Your task to perform on an android device: Open Google Maps and go to "Timeline" Image 0: 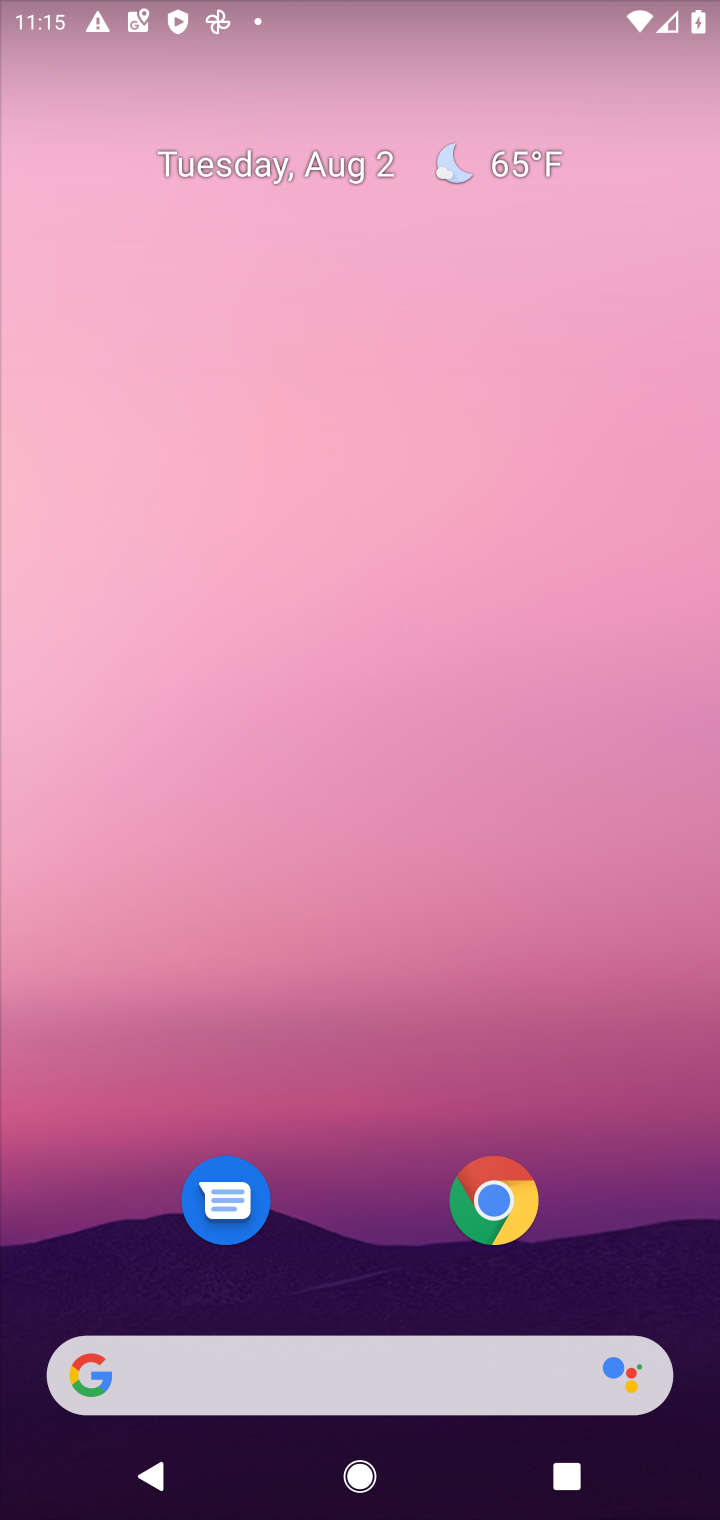
Step 0: drag from (662, 1311) to (529, 171)
Your task to perform on an android device: Open Google Maps and go to "Timeline" Image 1: 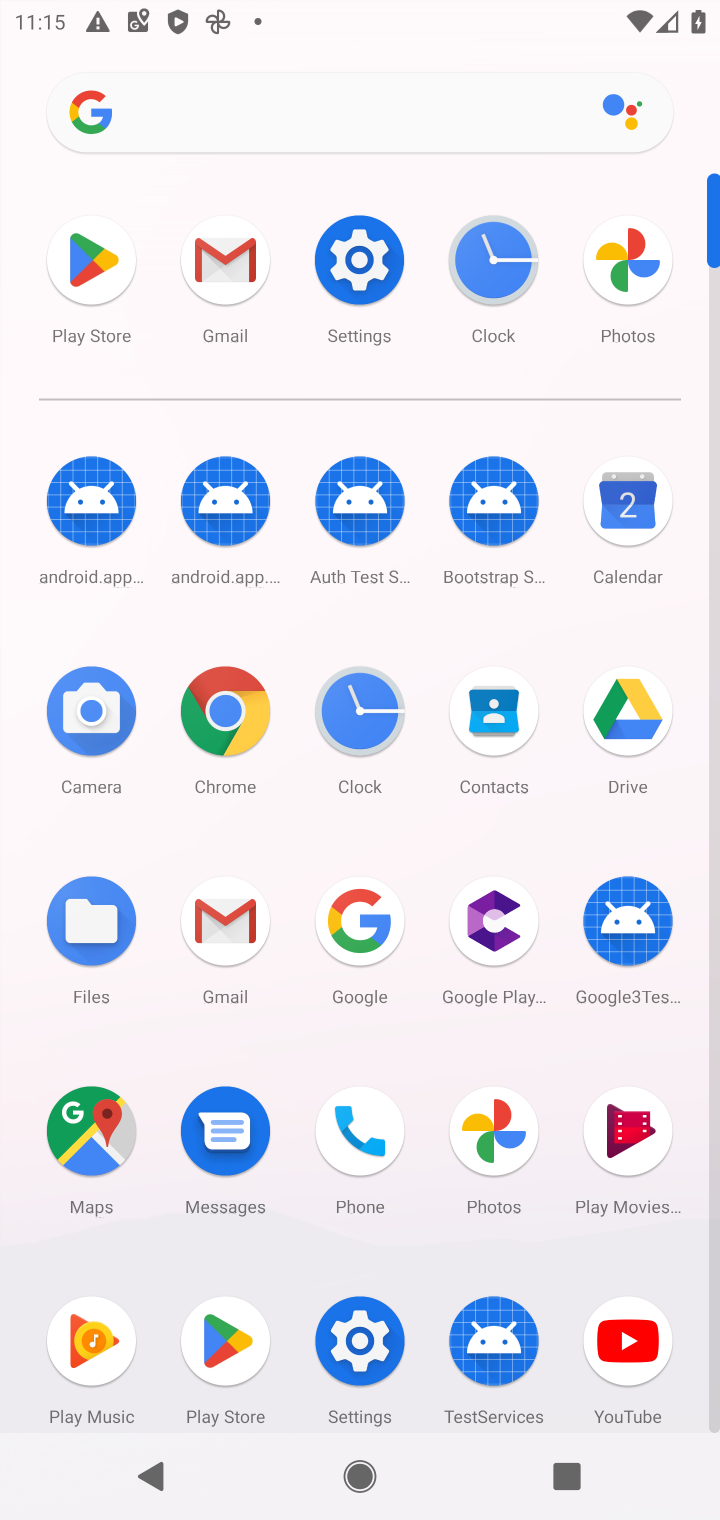
Step 1: click (83, 1126)
Your task to perform on an android device: Open Google Maps and go to "Timeline" Image 2: 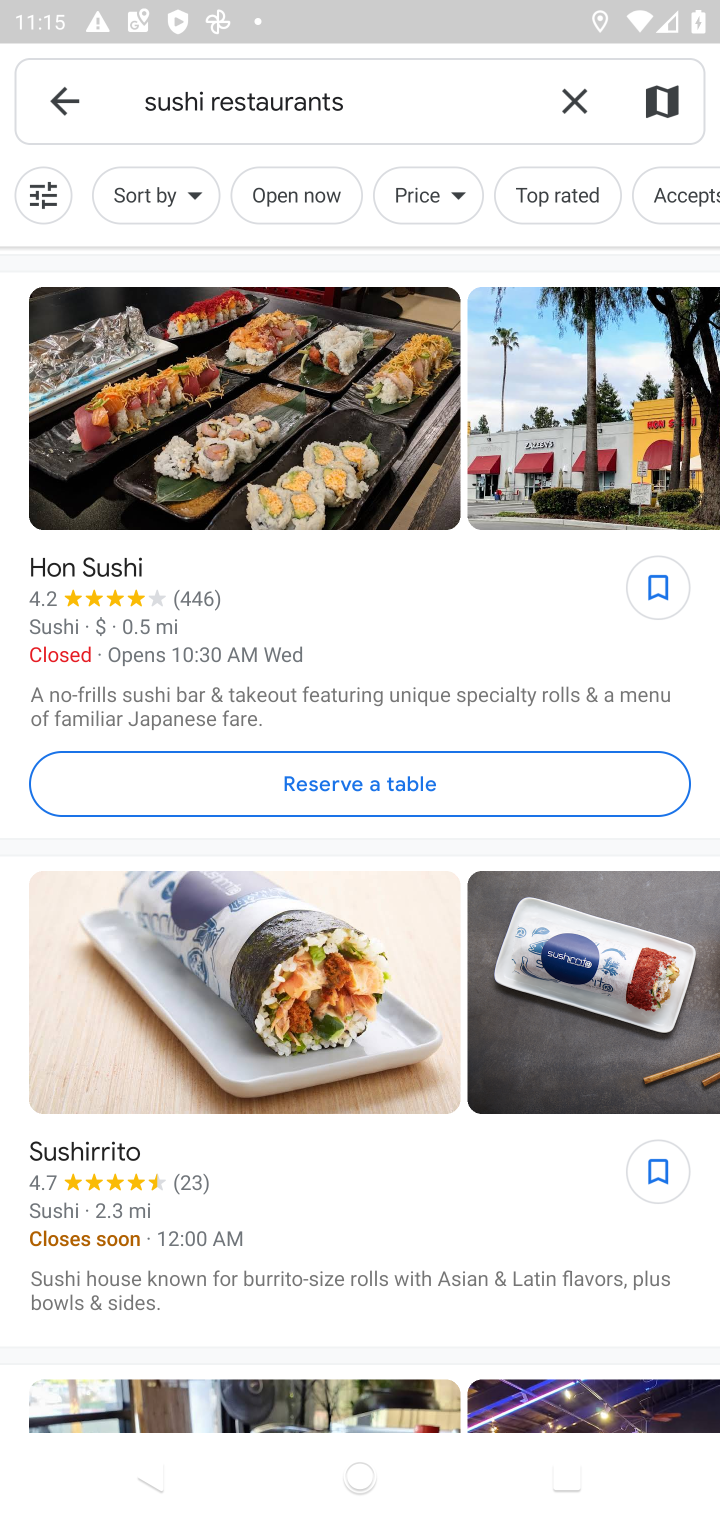
Step 2: click (575, 102)
Your task to perform on an android device: Open Google Maps and go to "Timeline" Image 3: 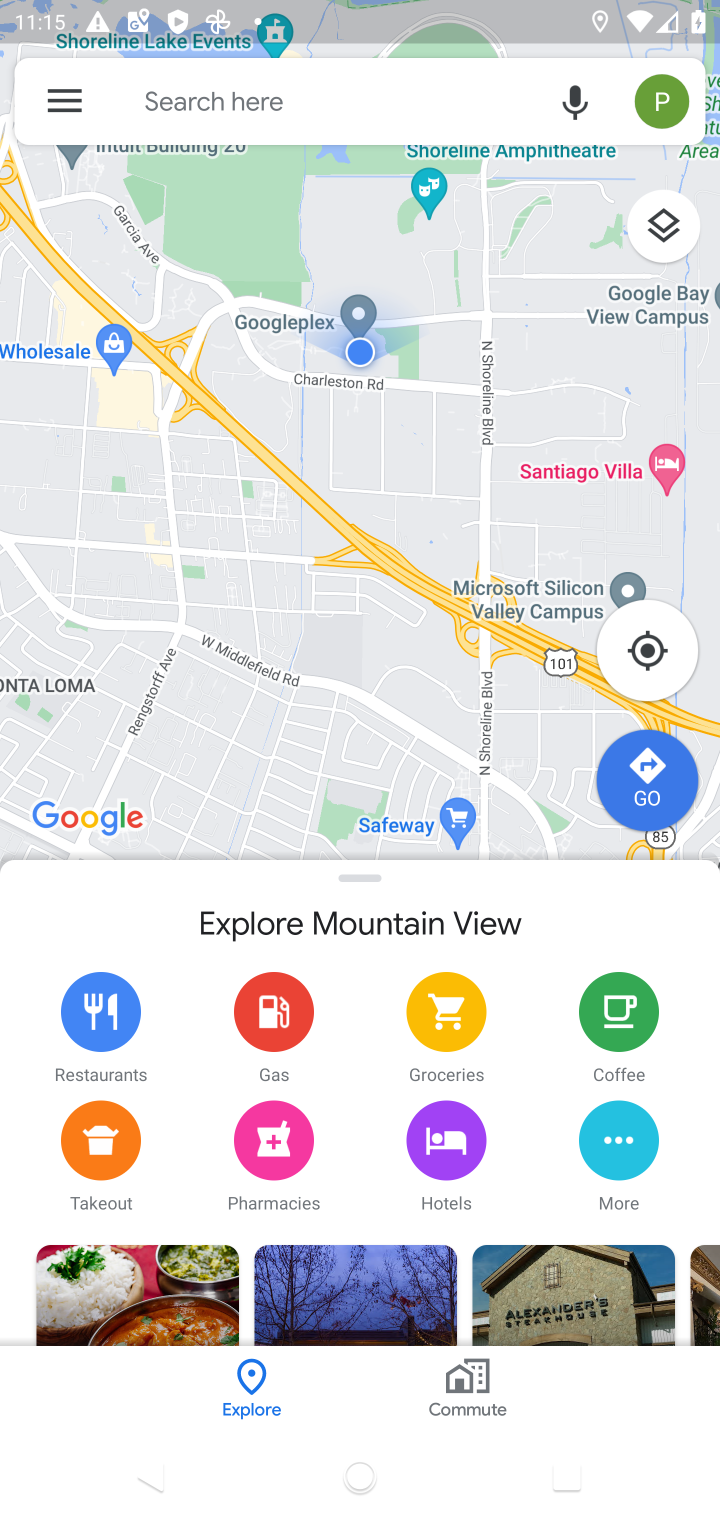
Step 3: click (60, 101)
Your task to perform on an android device: Open Google Maps and go to "Timeline" Image 4: 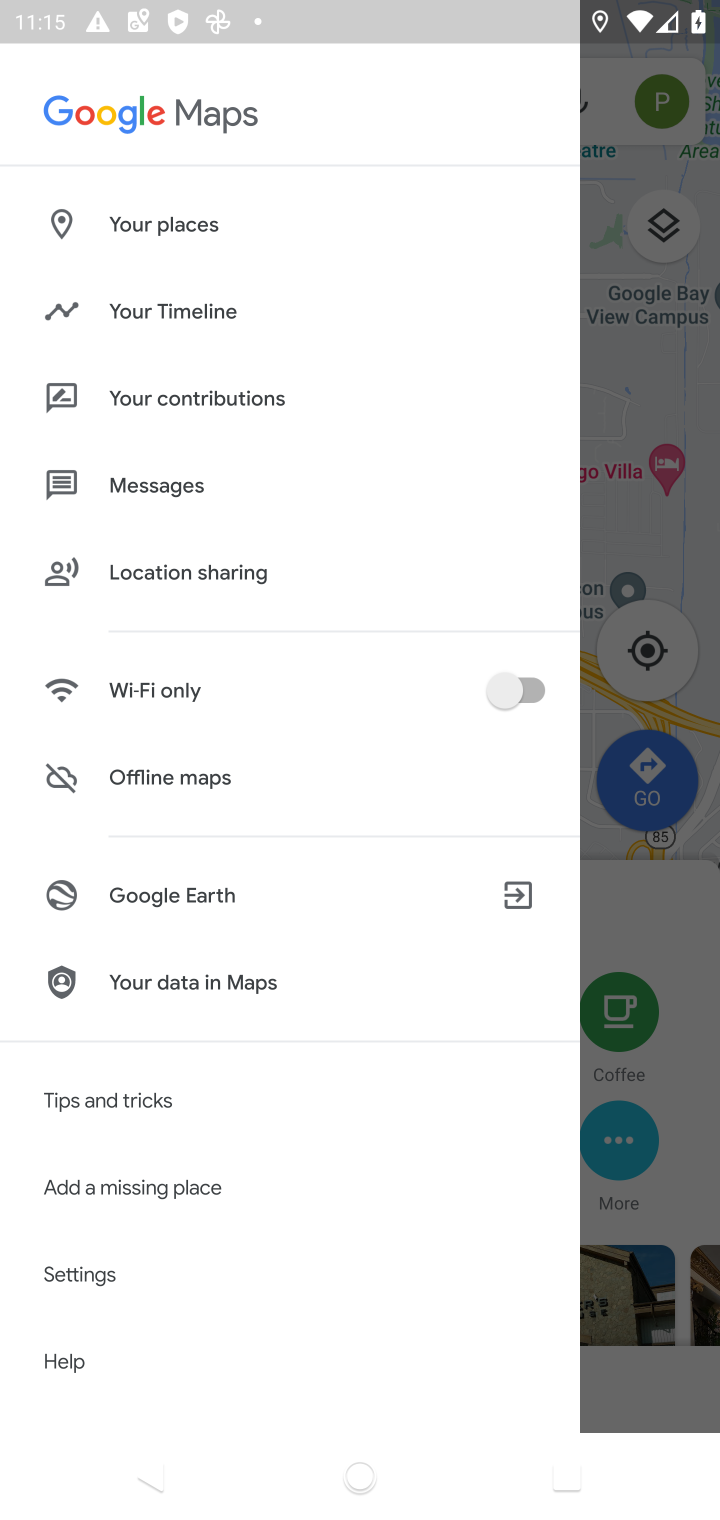
Step 4: click (187, 293)
Your task to perform on an android device: Open Google Maps and go to "Timeline" Image 5: 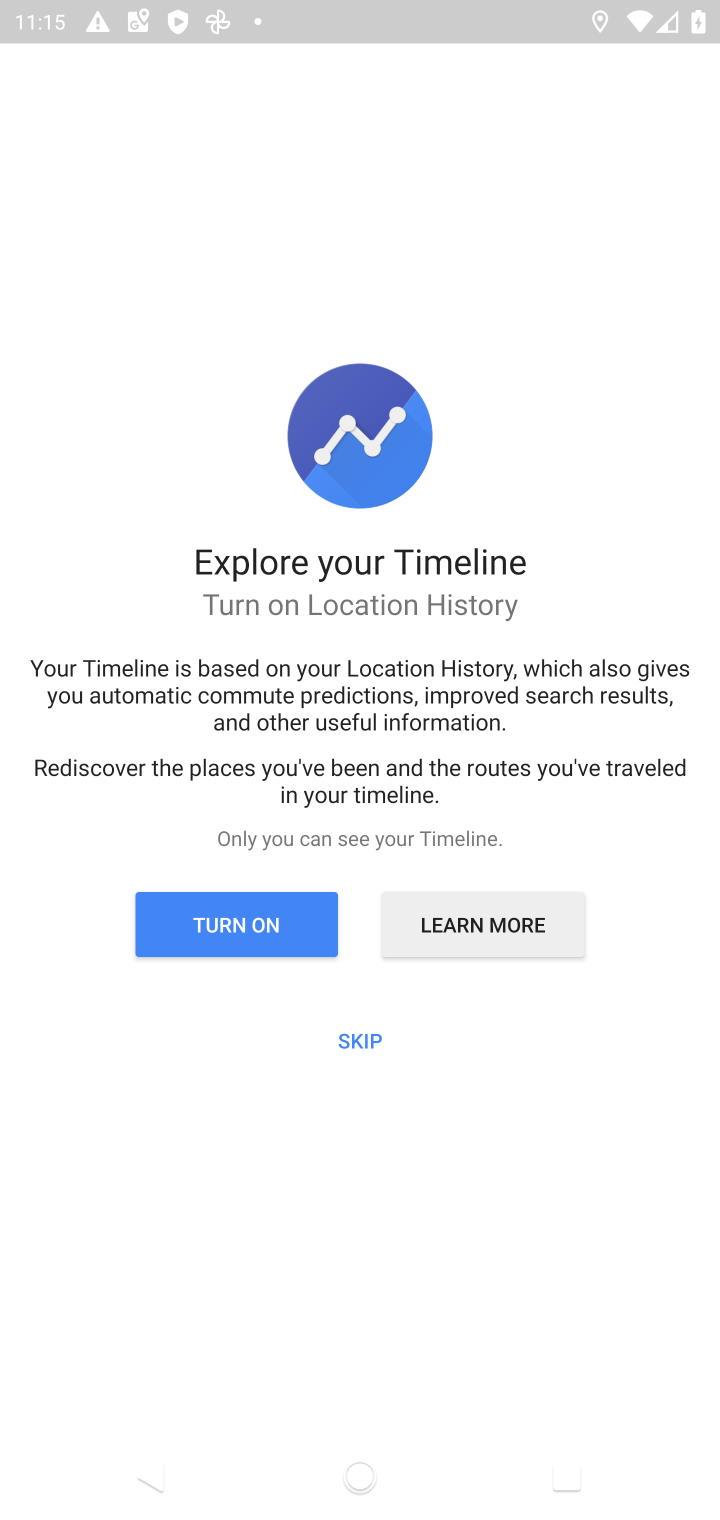
Step 5: click (354, 1043)
Your task to perform on an android device: Open Google Maps and go to "Timeline" Image 6: 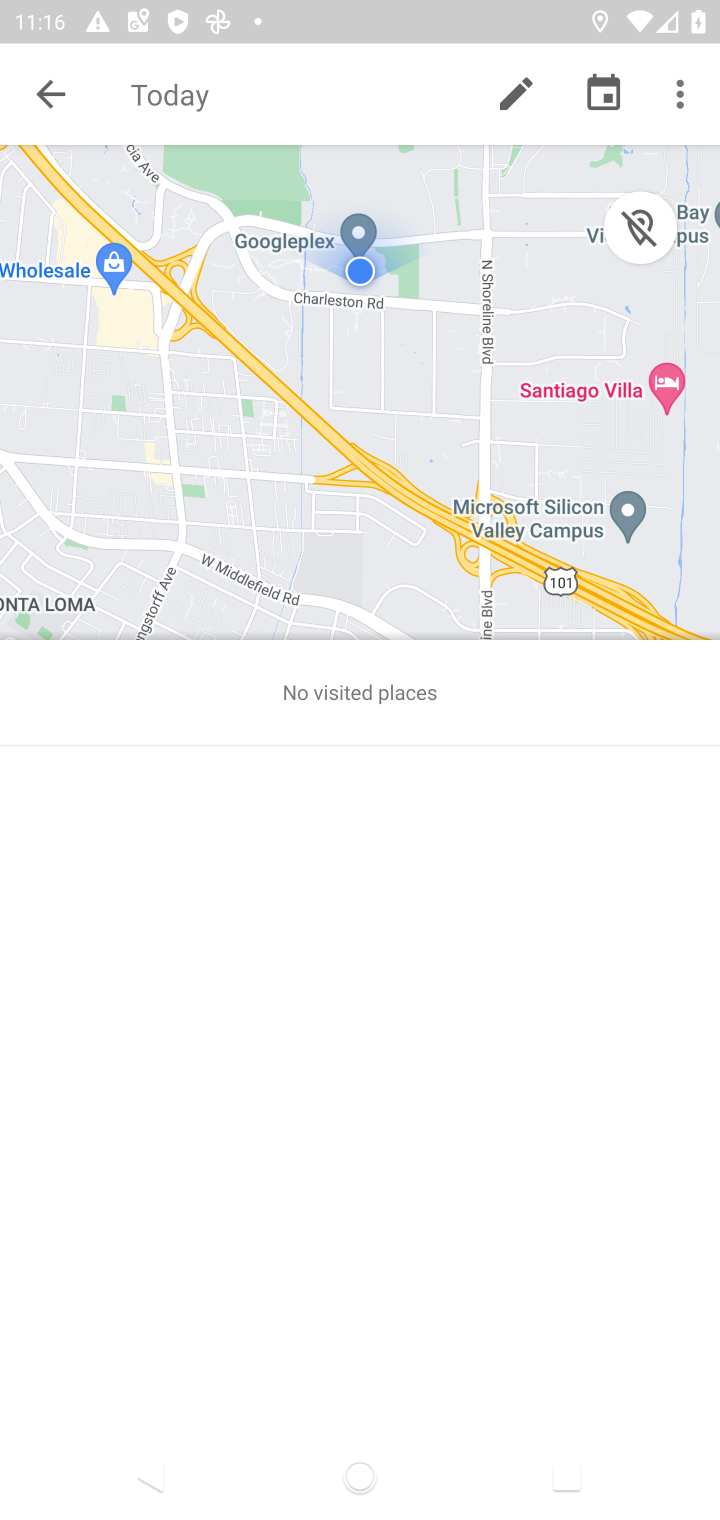
Step 6: task complete